Your task to perform on an android device: Search for "macbook air" on newegg, select the first entry, add it to the cart, then select checkout. Image 0: 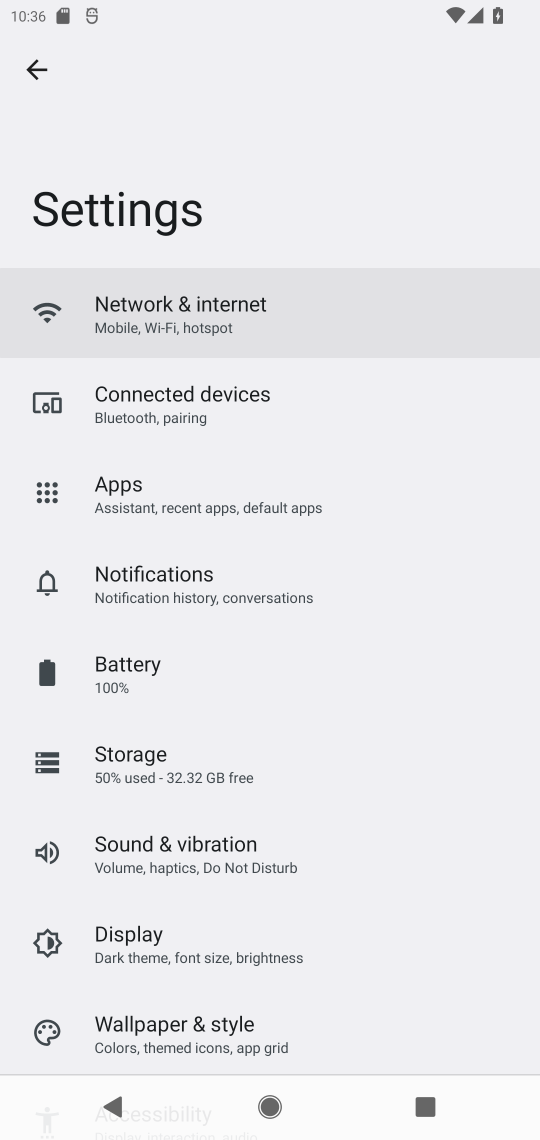
Step 0: press home button
Your task to perform on an android device: Search for "macbook air" on newegg, select the first entry, add it to the cart, then select checkout. Image 1: 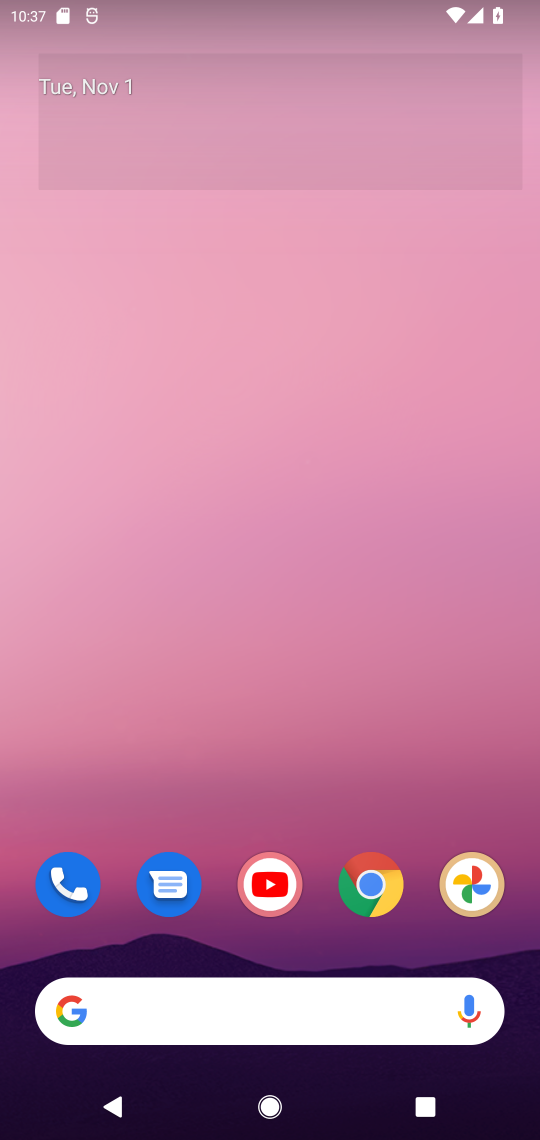
Step 1: click (364, 896)
Your task to perform on an android device: Search for "macbook air" on newegg, select the first entry, add it to the cart, then select checkout. Image 2: 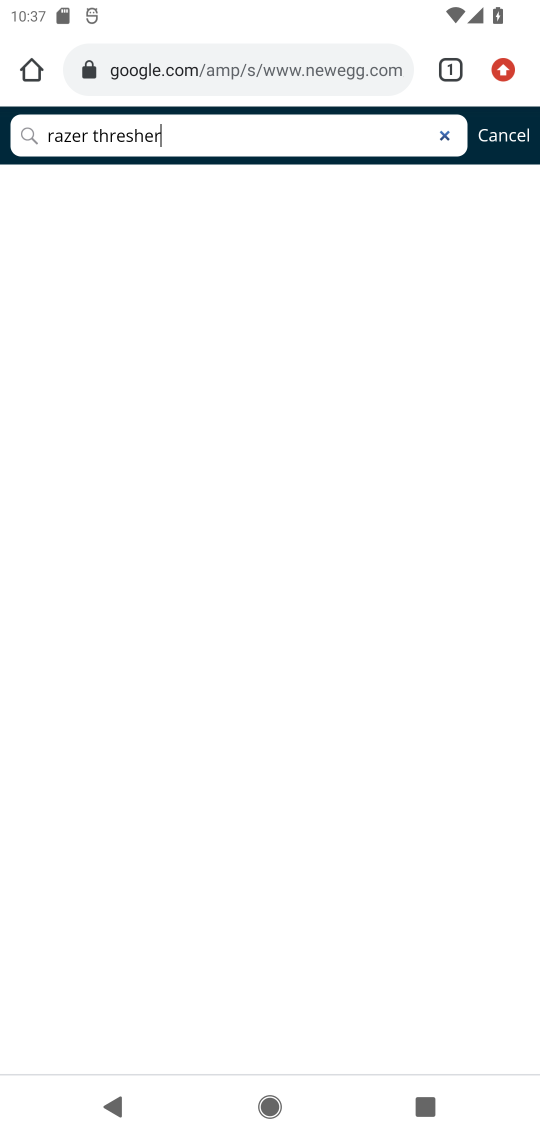
Step 2: click (243, 76)
Your task to perform on an android device: Search for "macbook air" on newegg, select the first entry, add it to the cart, then select checkout. Image 3: 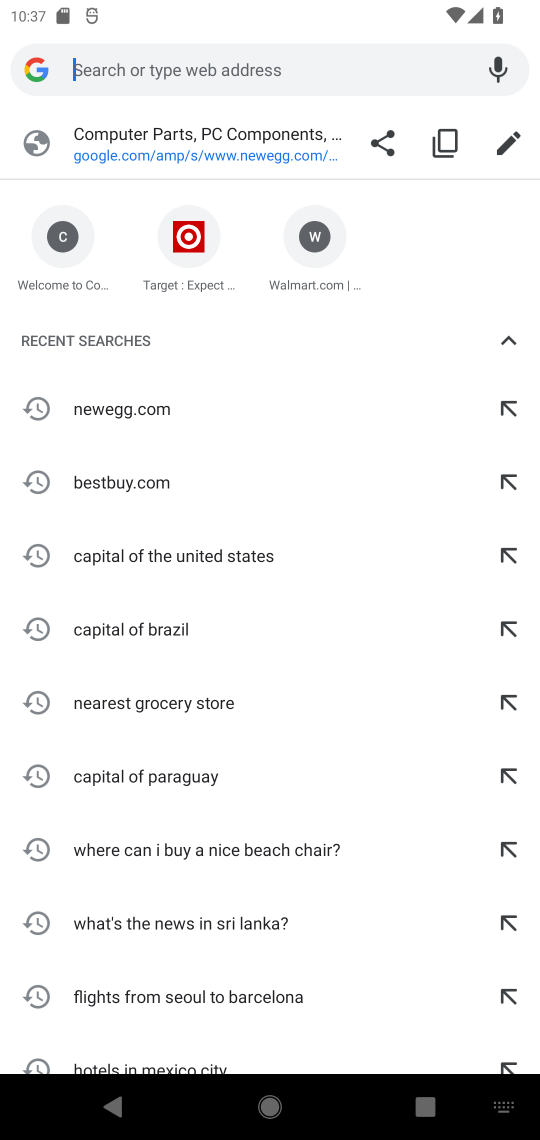
Step 3: type "newegg.com"
Your task to perform on an android device: Search for "macbook air" on newegg, select the first entry, add it to the cart, then select checkout. Image 4: 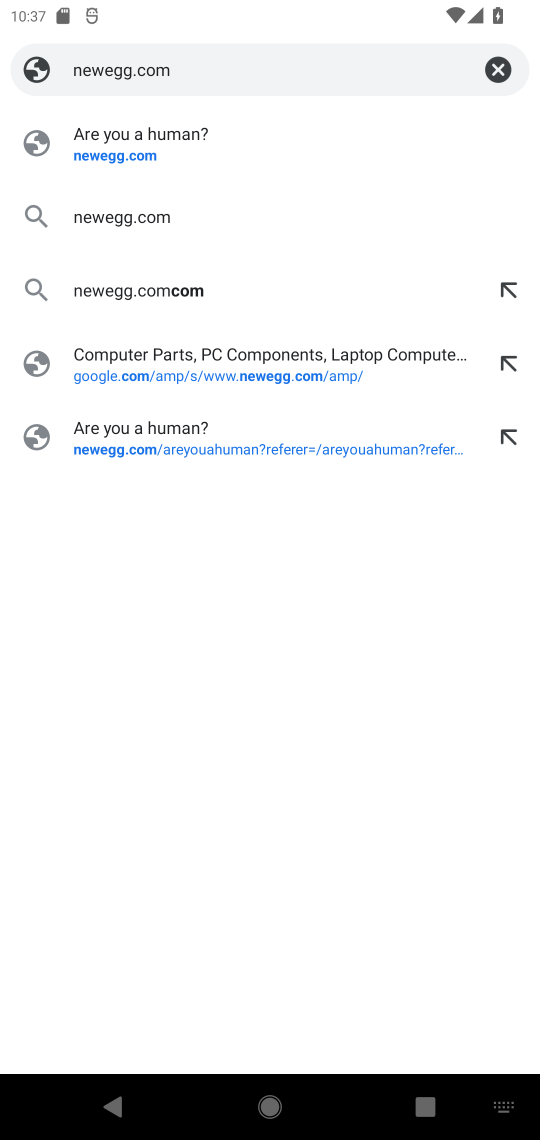
Step 4: click (120, 225)
Your task to perform on an android device: Search for "macbook air" on newegg, select the first entry, add it to the cart, then select checkout. Image 5: 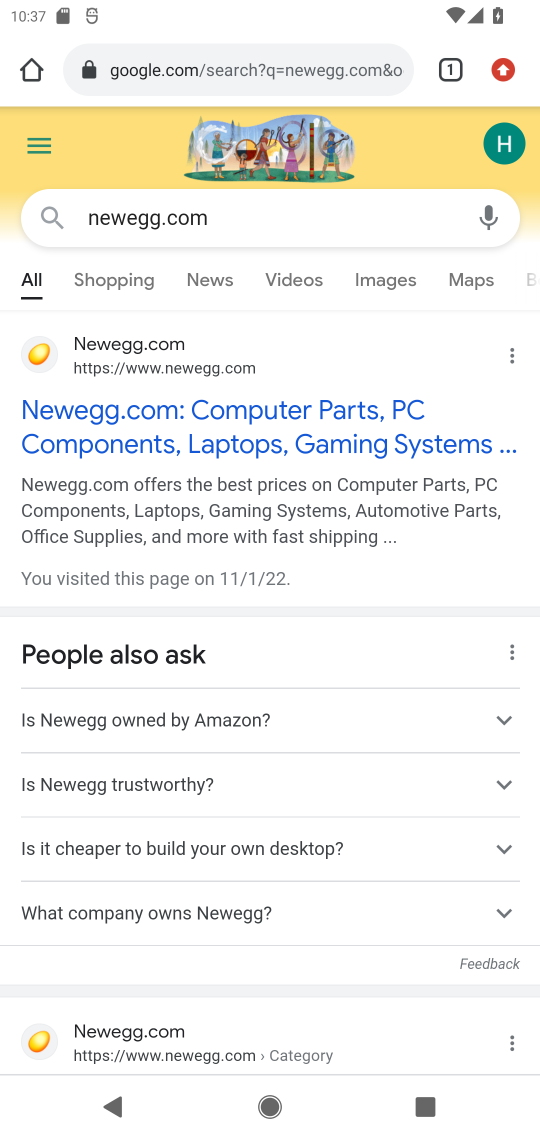
Step 5: click (117, 357)
Your task to perform on an android device: Search for "macbook air" on newegg, select the first entry, add it to the cart, then select checkout. Image 6: 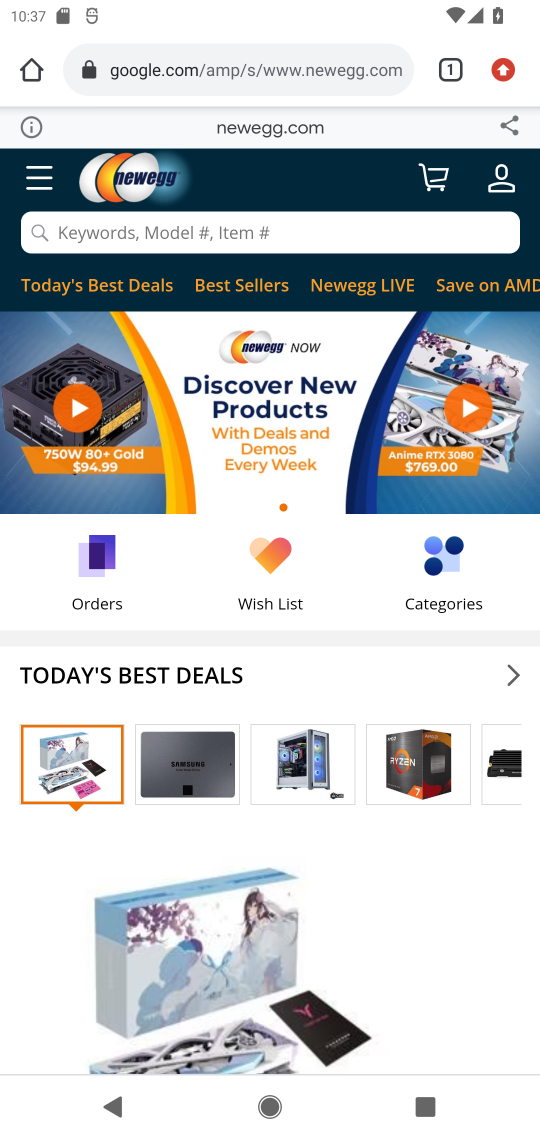
Step 6: click (186, 225)
Your task to perform on an android device: Search for "macbook air" on newegg, select the first entry, add it to the cart, then select checkout. Image 7: 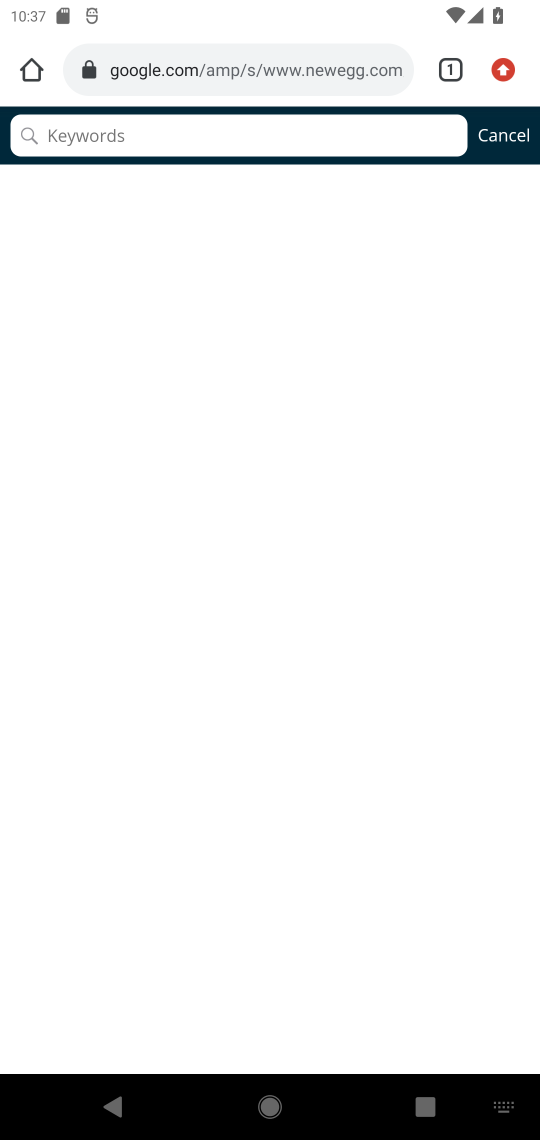
Step 7: type "macbook air"
Your task to perform on an android device: Search for "macbook air" on newegg, select the first entry, add it to the cart, then select checkout. Image 8: 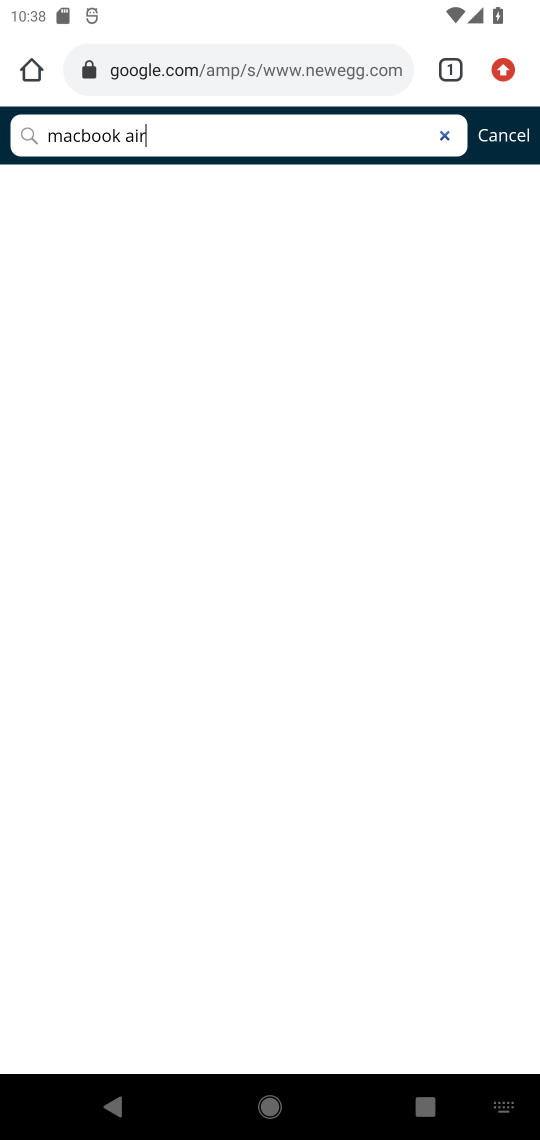
Step 8: click (30, 135)
Your task to perform on an android device: Search for "macbook air" on newegg, select the first entry, add it to the cart, then select checkout. Image 9: 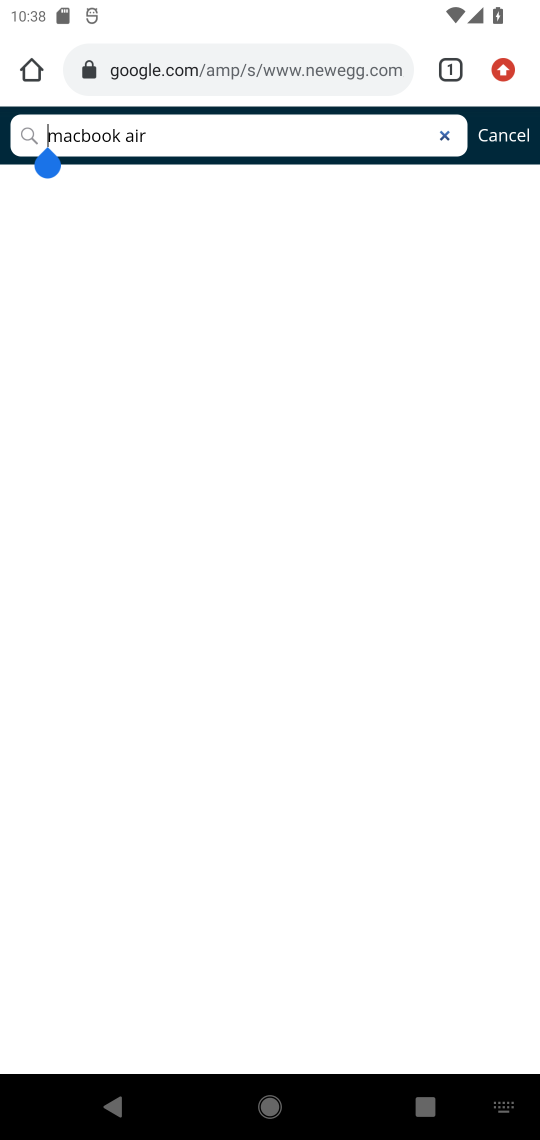
Step 9: task complete